Your task to perform on an android device: Search for Italian restaurants on Maps Image 0: 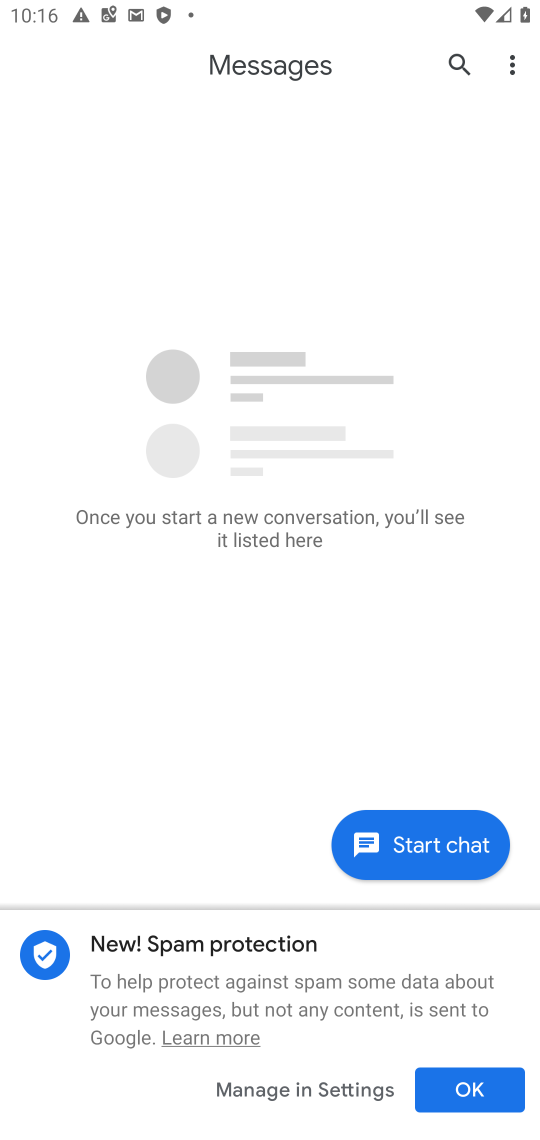
Step 0: press home button
Your task to perform on an android device: Search for Italian restaurants on Maps Image 1: 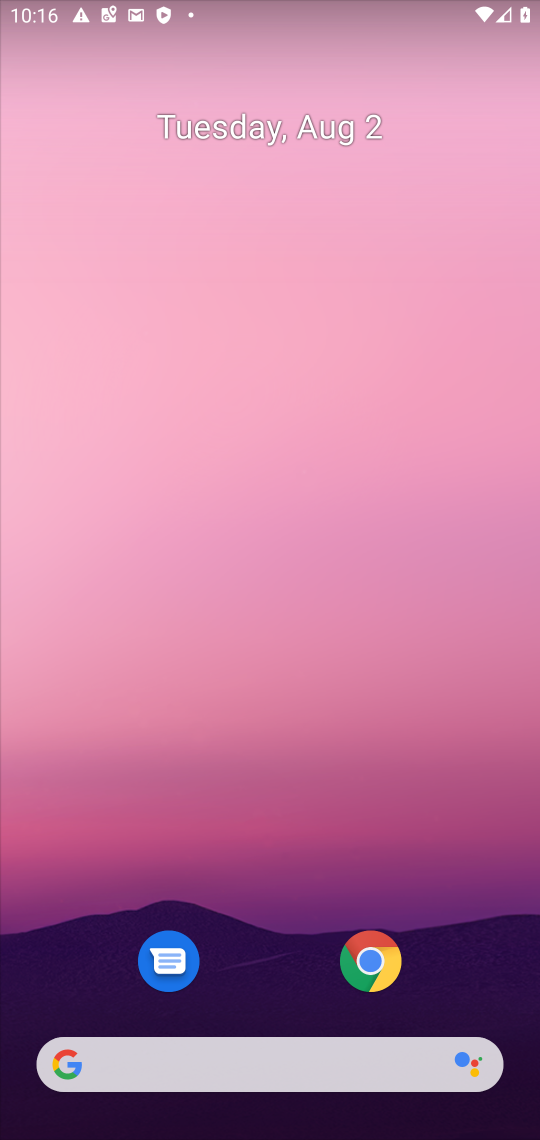
Step 1: drag from (304, 1007) to (203, 116)
Your task to perform on an android device: Search for Italian restaurants on Maps Image 2: 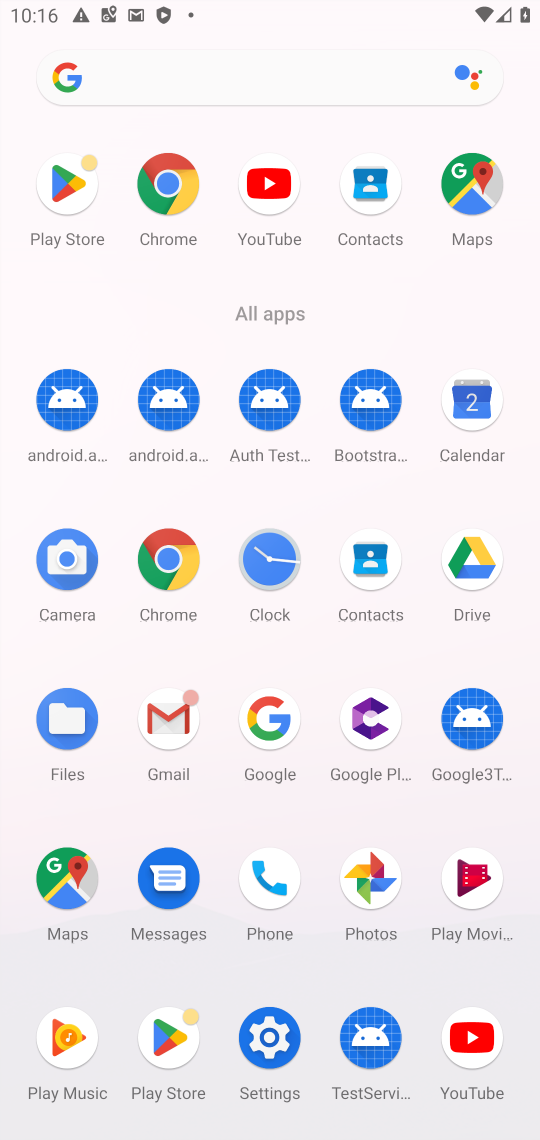
Step 2: click (81, 183)
Your task to perform on an android device: Search for Italian restaurants on Maps Image 3: 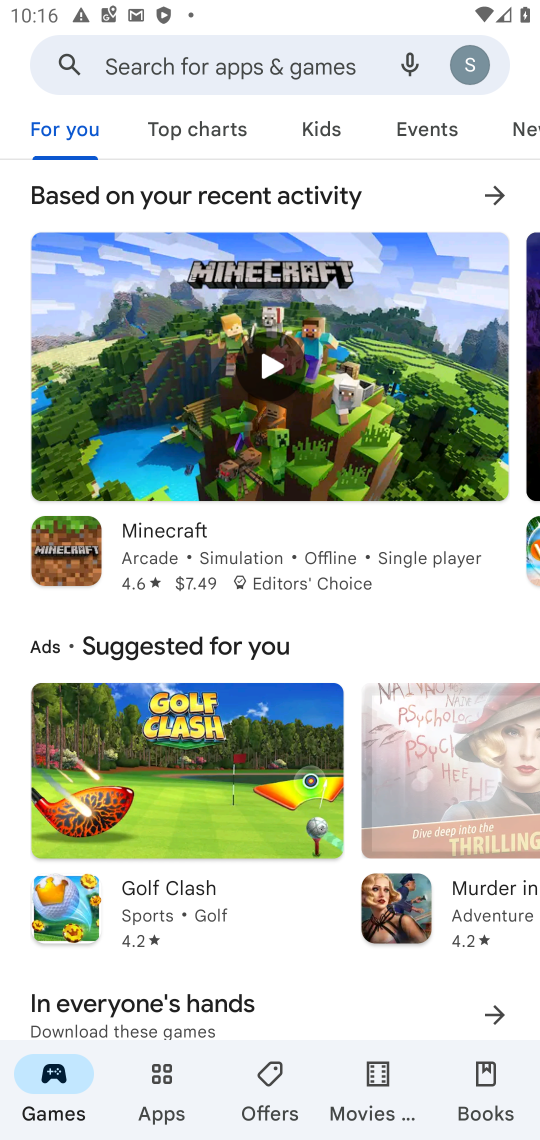
Step 3: click (307, 65)
Your task to perform on an android device: Search for Italian restaurants on Maps Image 4: 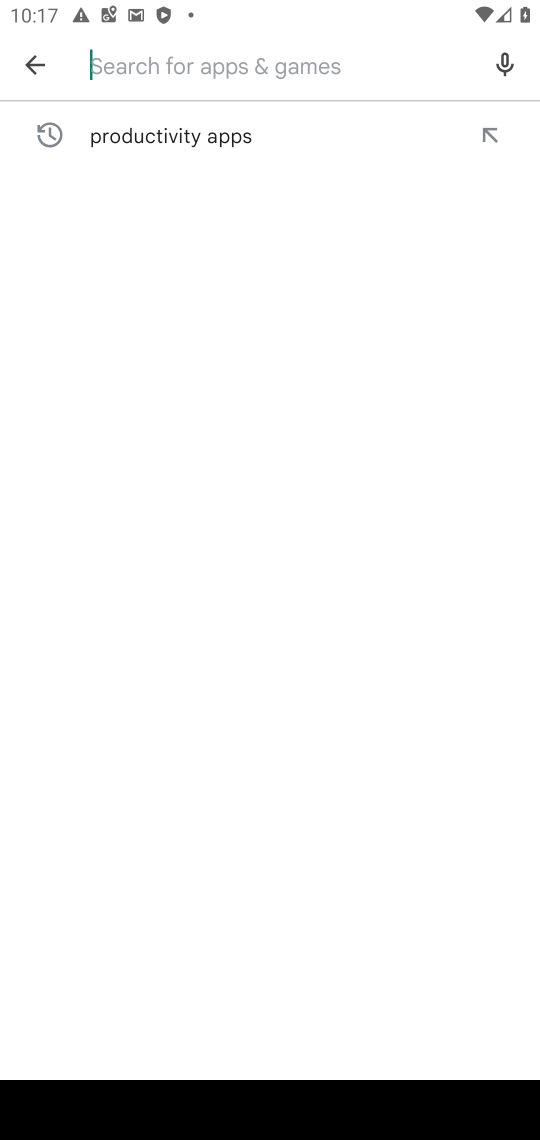
Step 4: press home button
Your task to perform on an android device: Search for Italian restaurants on Maps Image 5: 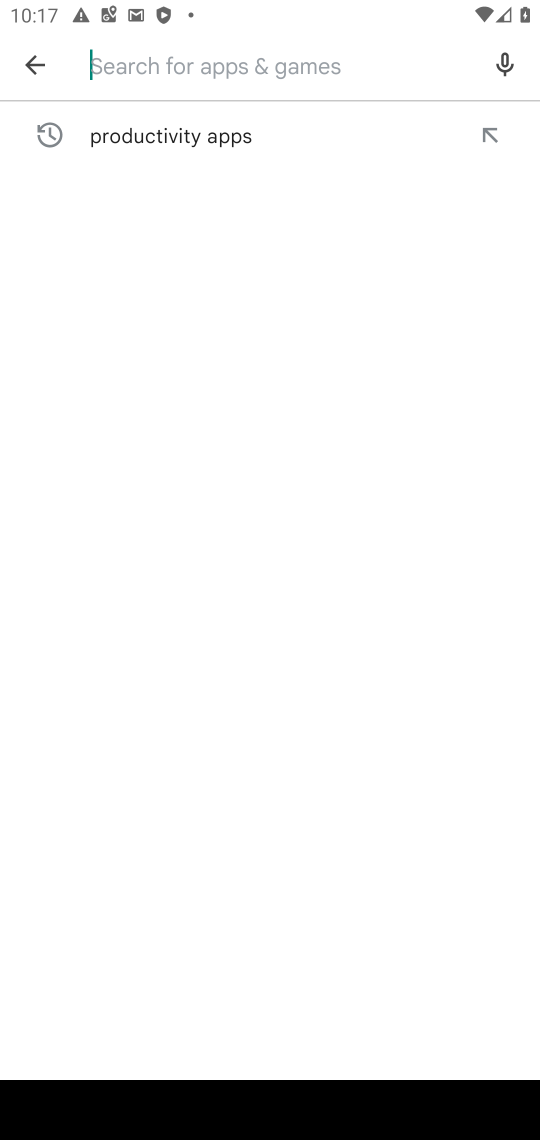
Step 5: press home button
Your task to perform on an android device: Search for Italian restaurants on Maps Image 6: 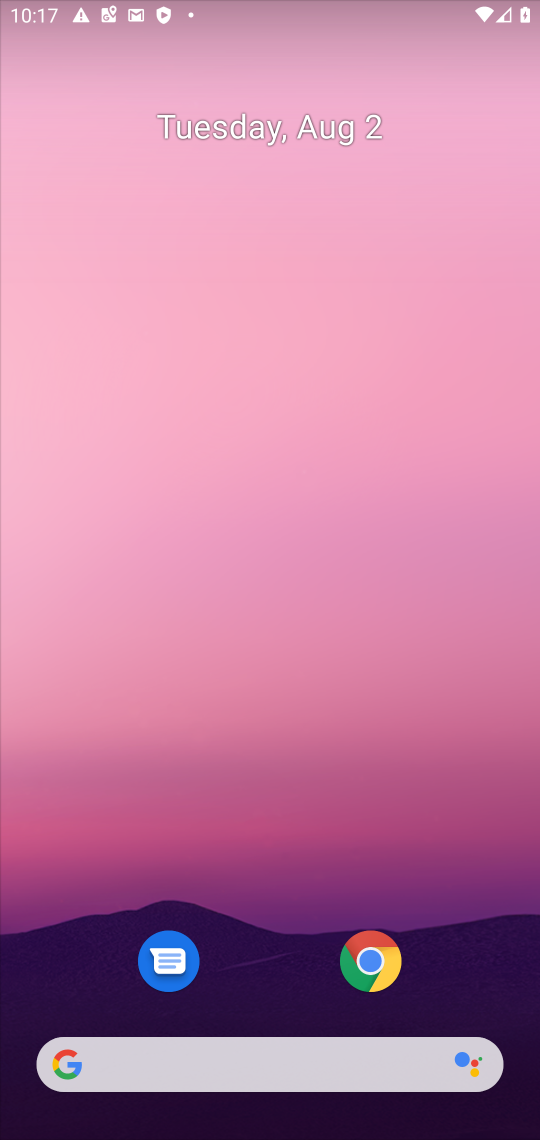
Step 6: press home button
Your task to perform on an android device: Search for Italian restaurants on Maps Image 7: 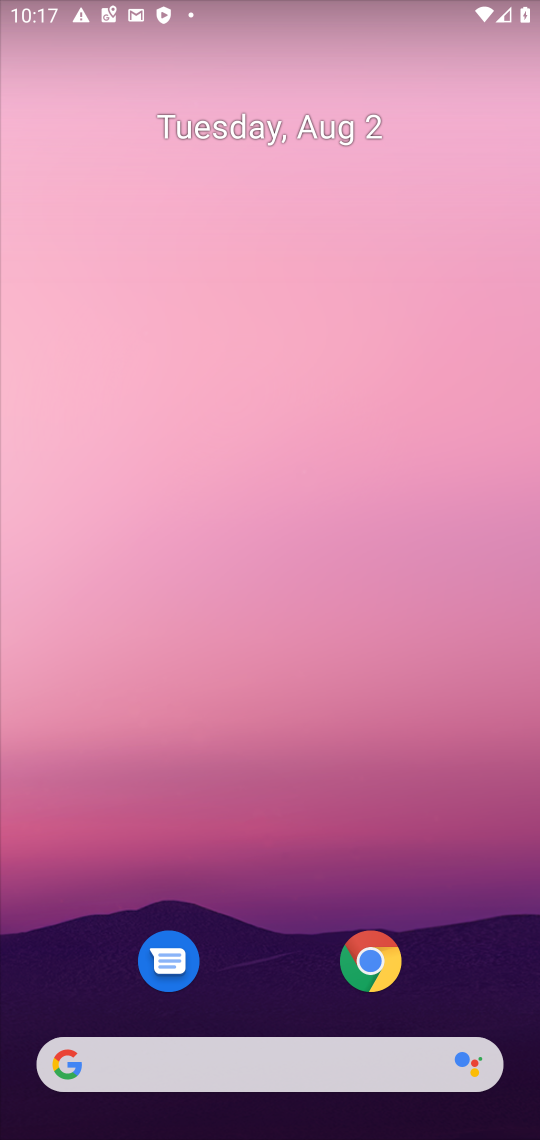
Step 7: drag from (297, 901) to (400, 16)
Your task to perform on an android device: Search for Italian restaurants on Maps Image 8: 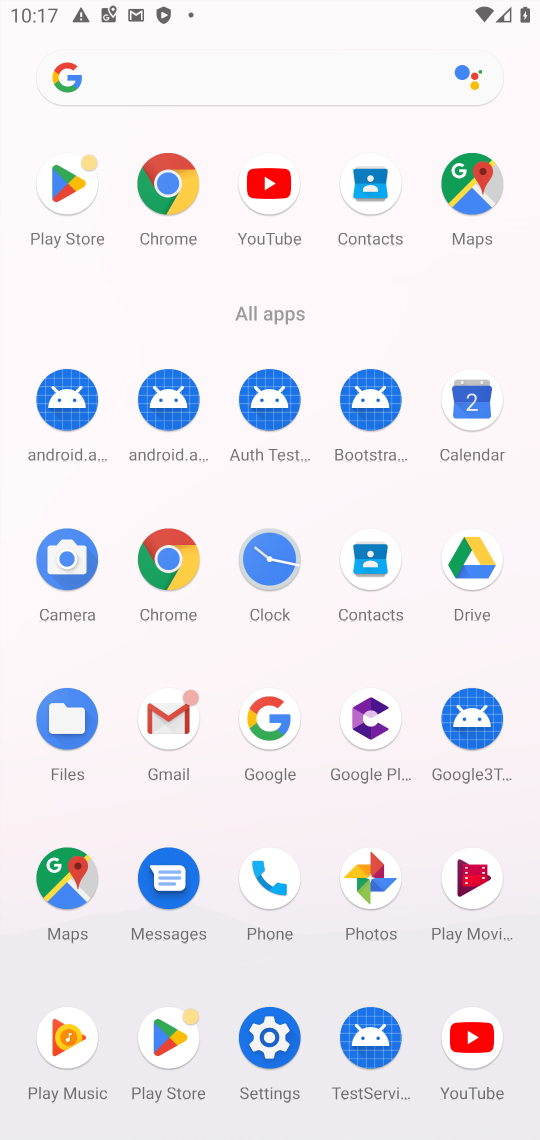
Step 8: click (63, 898)
Your task to perform on an android device: Search for Italian restaurants on Maps Image 9: 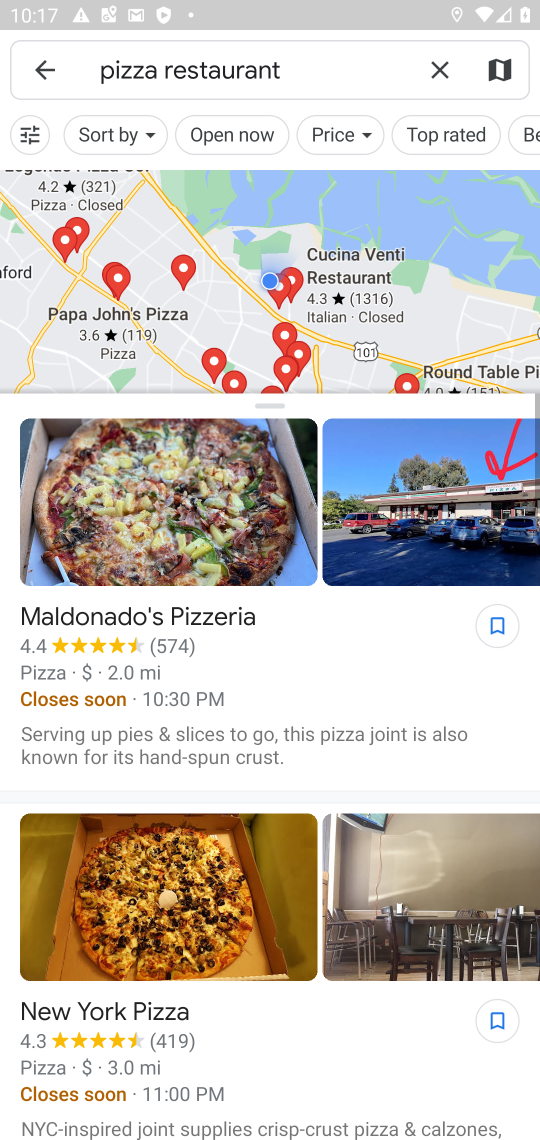
Step 9: click (436, 61)
Your task to perform on an android device: Search for Italian restaurants on Maps Image 10: 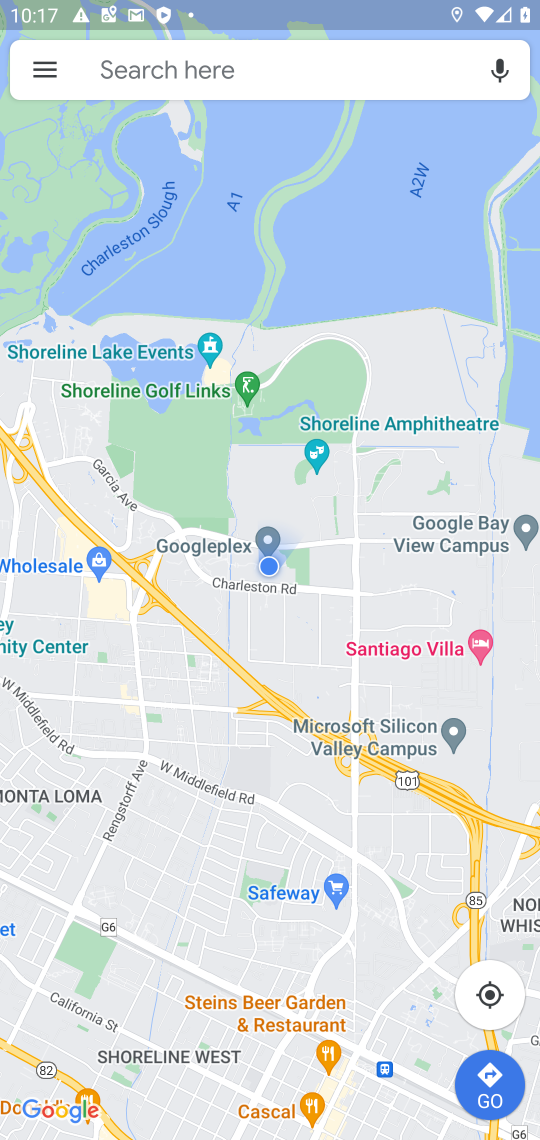
Step 10: click (405, 76)
Your task to perform on an android device: Search for Italian restaurants on Maps Image 11: 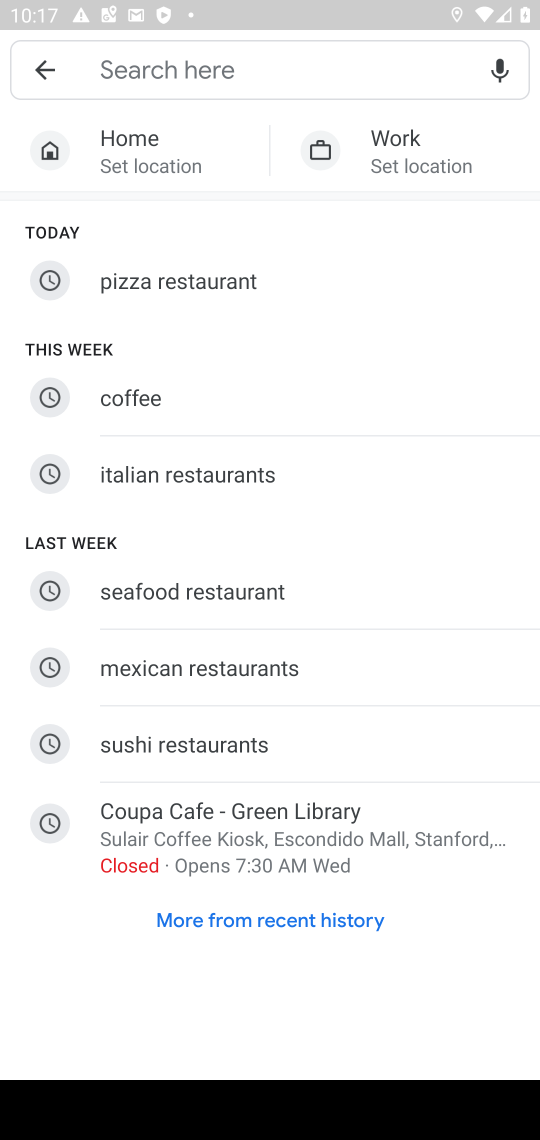
Step 11: type "Italian restaurants "
Your task to perform on an android device: Search for Italian restaurants on Maps Image 12: 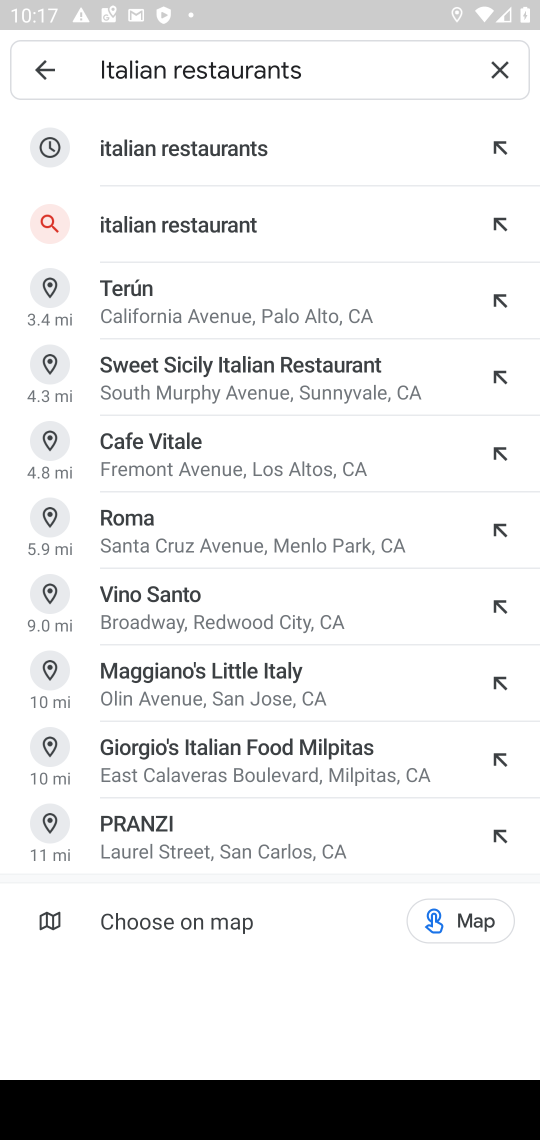
Step 12: click (202, 119)
Your task to perform on an android device: Search for Italian restaurants on Maps Image 13: 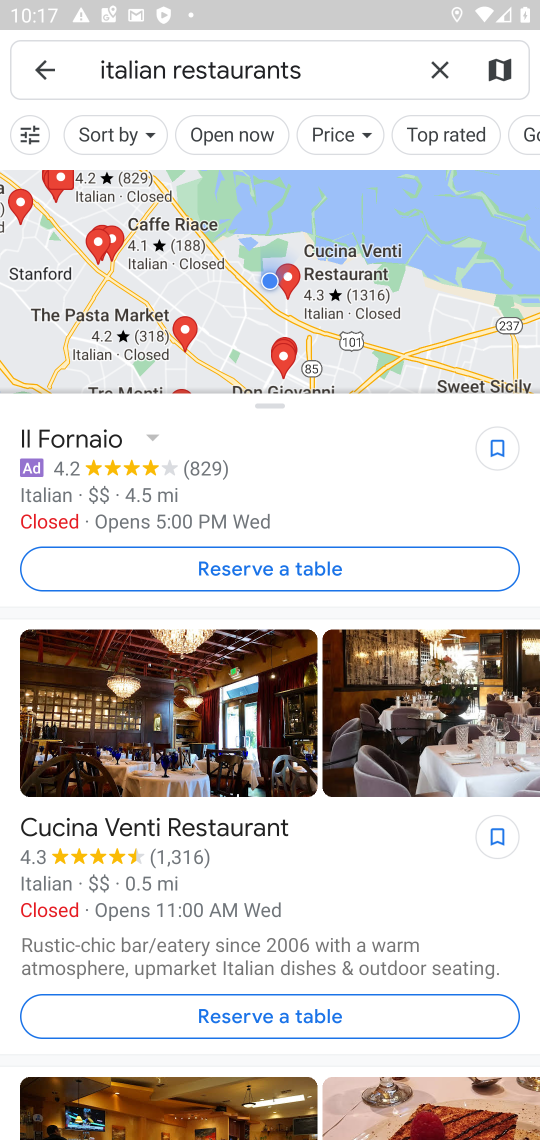
Step 13: task complete